Your task to perform on an android device: Open the calendar and show me this week's events? Image 0: 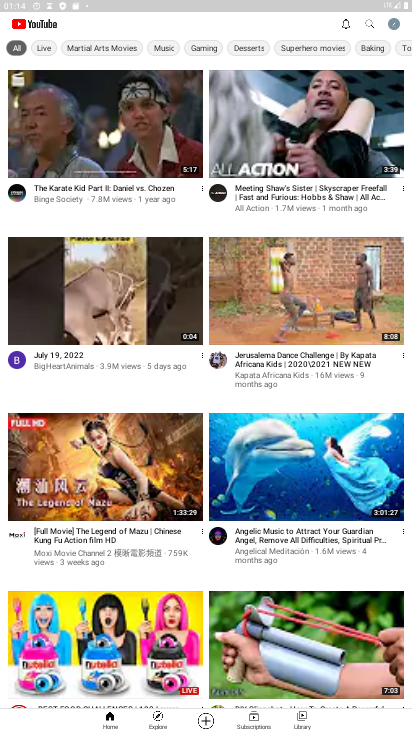
Step 0: press home button
Your task to perform on an android device: Open the calendar and show me this week's events? Image 1: 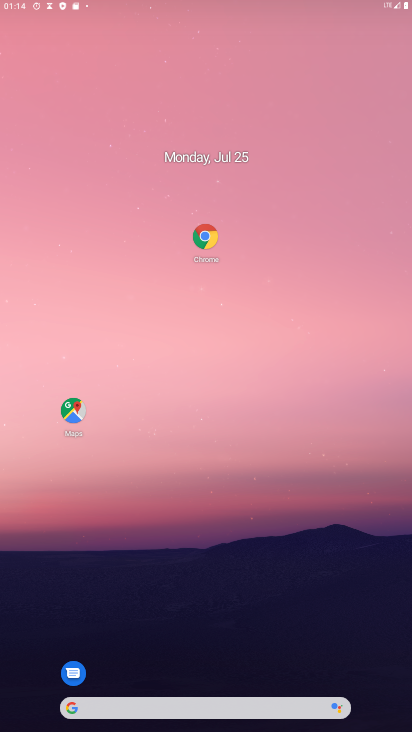
Step 1: drag from (240, 696) to (219, 17)
Your task to perform on an android device: Open the calendar and show me this week's events? Image 2: 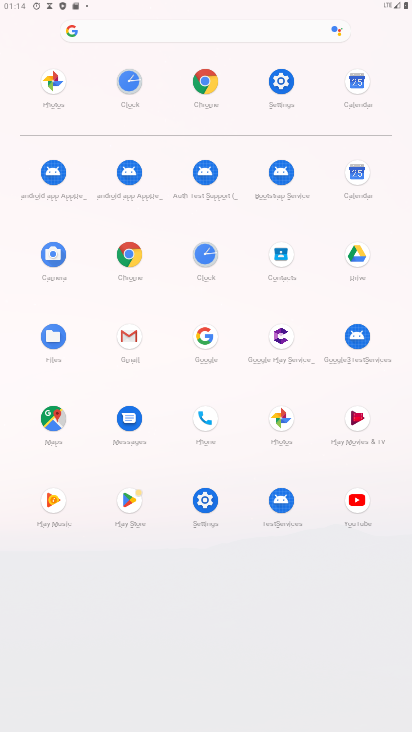
Step 2: click (356, 167)
Your task to perform on an android device: Open the calendar and show me this week's events? Image 3: 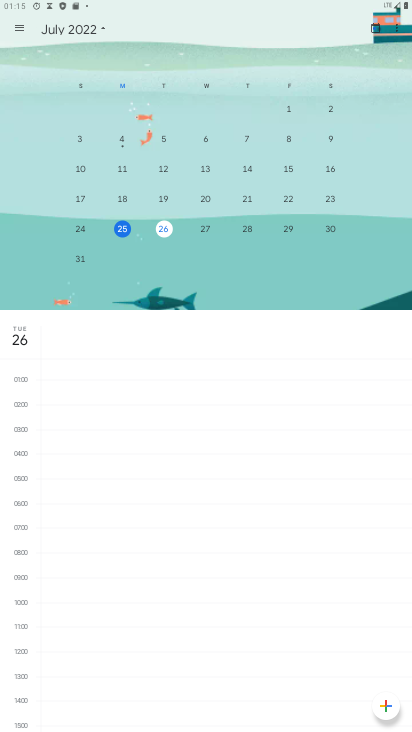
Step 3: click (325, 232)
Your task to perform on an android device: Open the calendar and show me this week's events? Image 4: 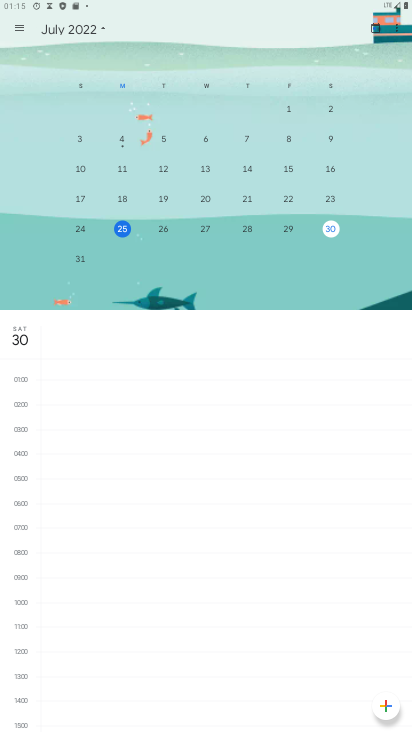
Step 4: task complete